Your task to perform on an android device: delete a single message in the gmail app Image 0: 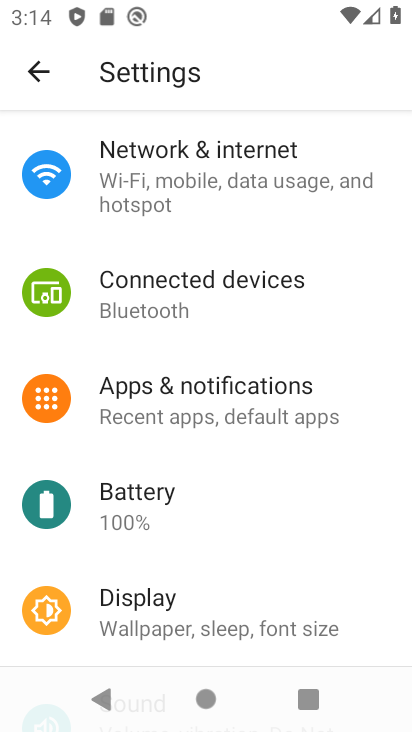
Step 0: press home button
Your task to perform on an android device: delete a single message in the gmail app Image 1: 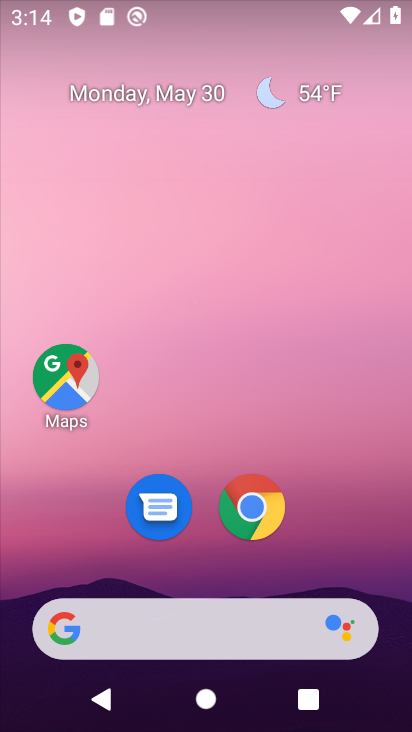
Step 1: drag from (93, 582) to (176, 138)
Your task to perform on an android device: delete a single message in the gmail app Image 2: 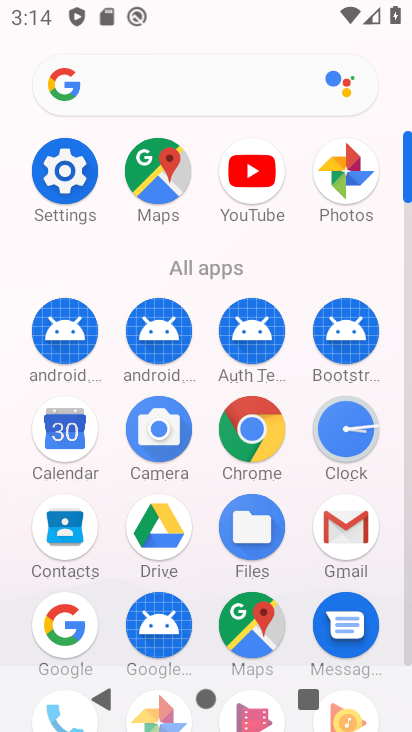
Step 2: click (337, 528)
Your task to perform on an android device: delete a single message in the gmail app Image 3: 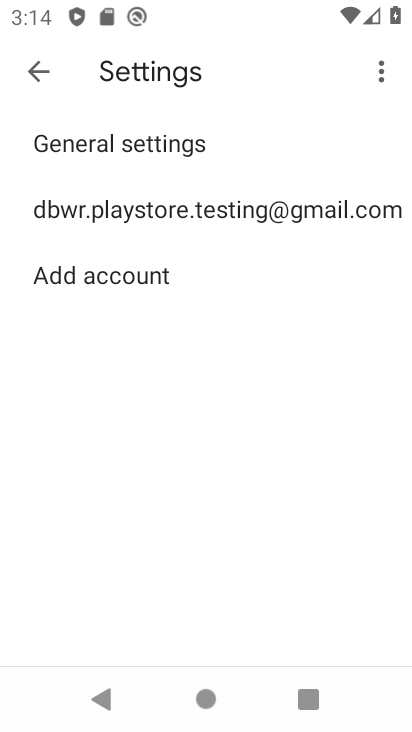
Step 3: click (37, 89)
Your task to perform on an android device: delete a single message in the gmail app Image 4: 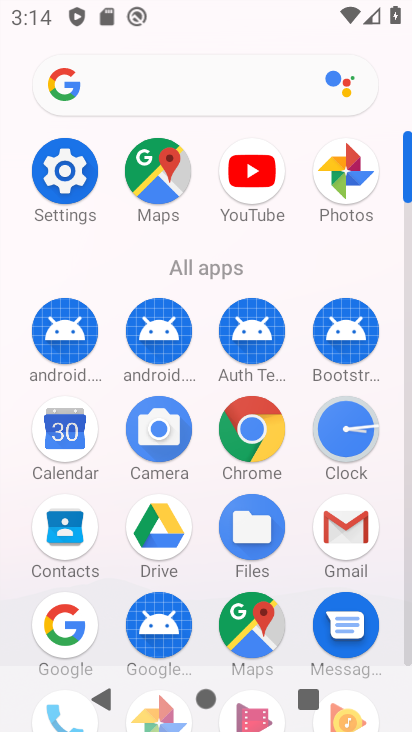
Step 4: click (358, 532)
Your task to perform on an android device: delete a single message in the gmail app Image 5: 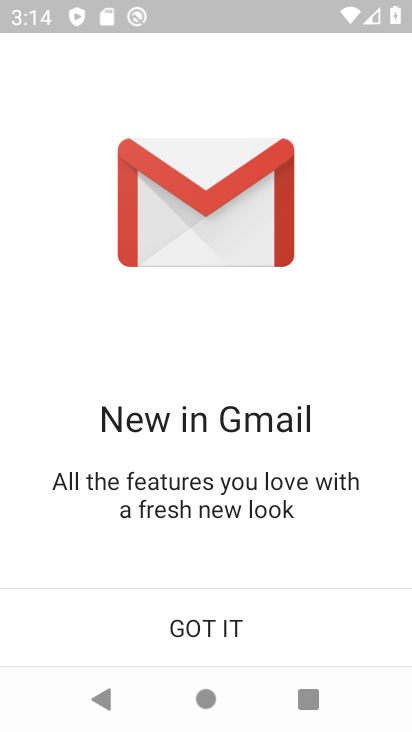
Step 5: click (337, 645)
Your task to perform on an android device: delete a single message in the gmail app Image 6: 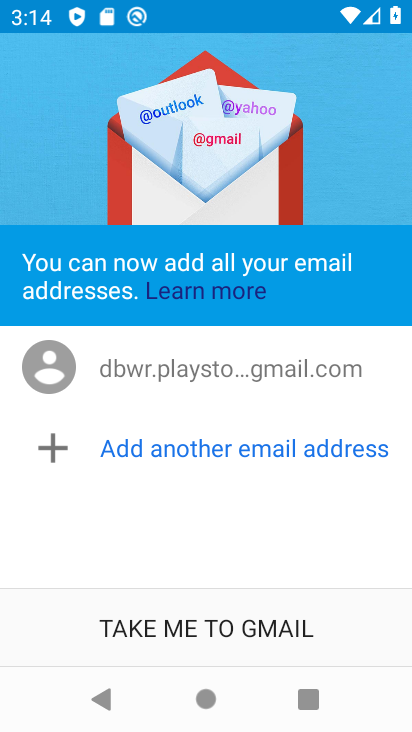
Step 6: click (335, 647)
Your task to perform on an android device: delete a single message in the gmail app Image 7: 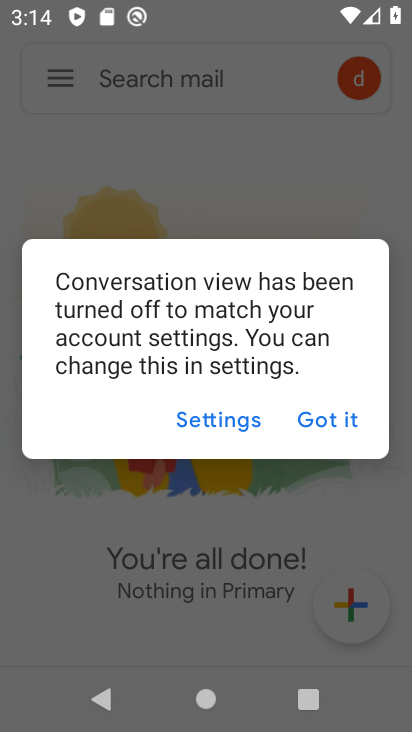
Step 7: click (346, 432)
Your task to perform on an android device: delete a single message in the gmail app Image 8: 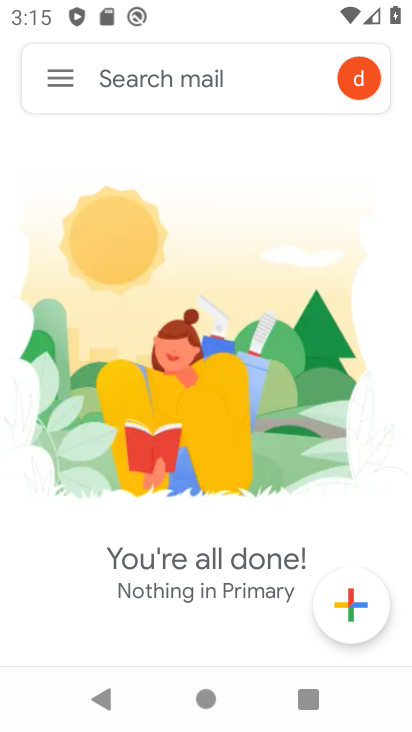
Step 8: click (87, 81)
Your task to perform on an android device: delete a single message in the gmail app Image 9: 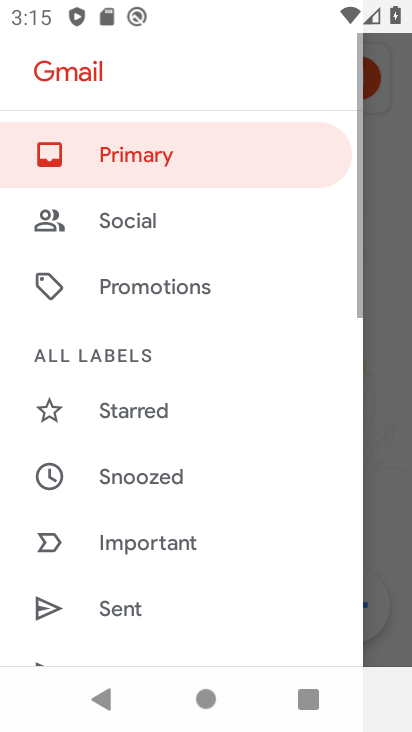
Step 9: drag from (209, 574) to (275, 223)
Your task to perform on an android device: delete a single message in the gmail app Image 10: 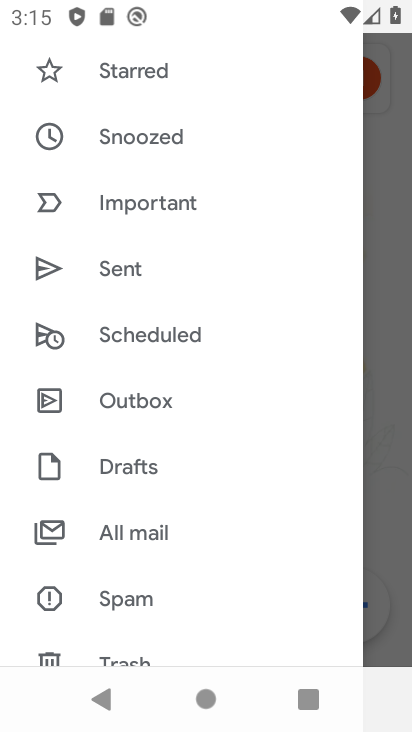
Step 10: click (205, 546)
Your task to perform on an android device: delete a single message in the gmail app Image 11: 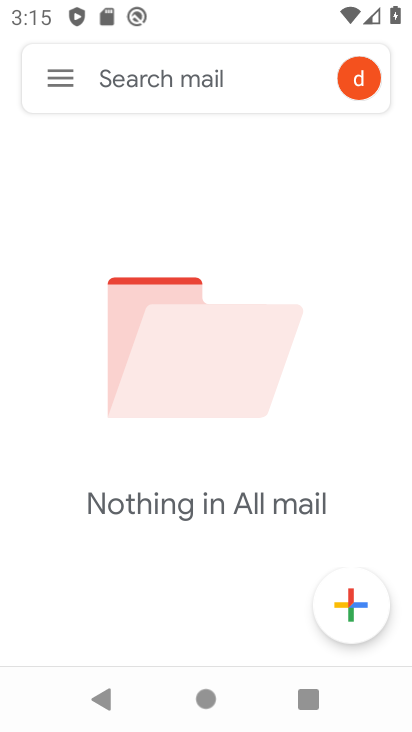
Step 11: click (205, 546)
Your task to perform on an android device: delete a single message in the gmail app Image 12: 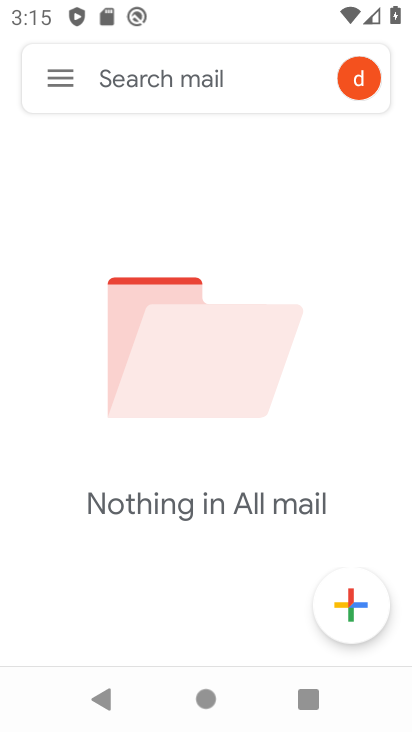
Step 12: task complete